Your task to perform on an android device: turn on location history Image 0: 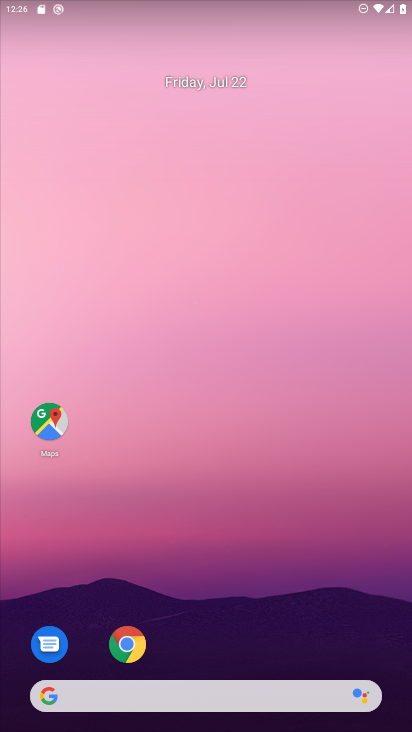
Step 0: drag from (204, 632) to (272, 103)
Your task to perform on an android device: turn on location history Image 1: 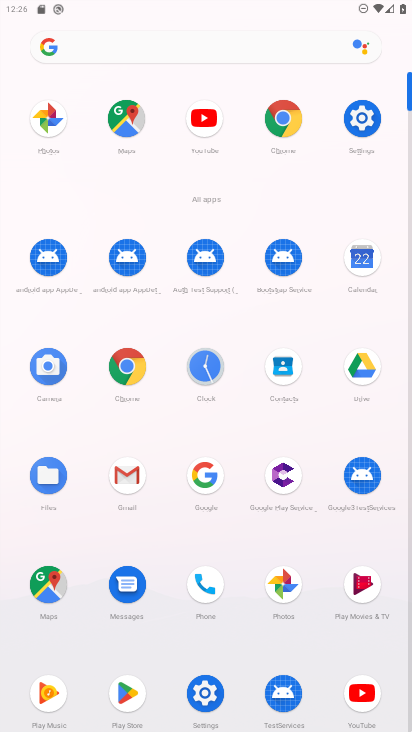
Step 1: click (361, 128)
Your task to perform on an android device: turn on location history Image 2: 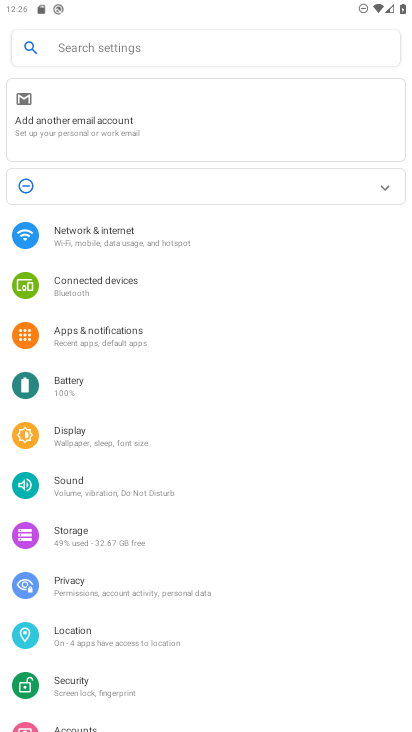
Step 2: click (85, 641)
Your task to perform on an android device: turn on location history Image 3: 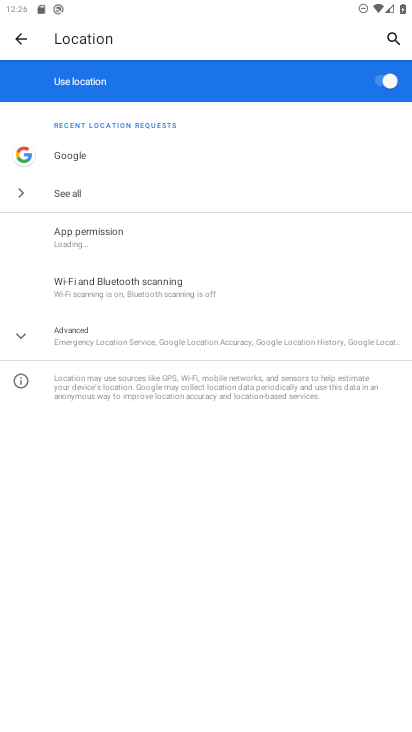
Step 3: click (161, 329)
Your task to perform on an android device: turn on location history Image 4: 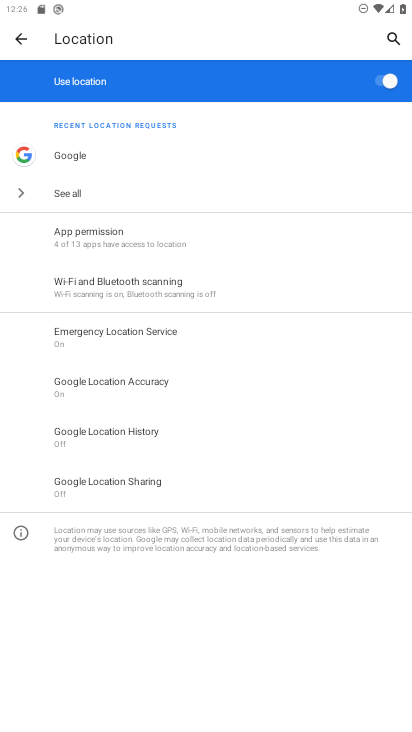
Step 4: click (136, 435)
Your task to perform on an android device: turn on location history Image 5: 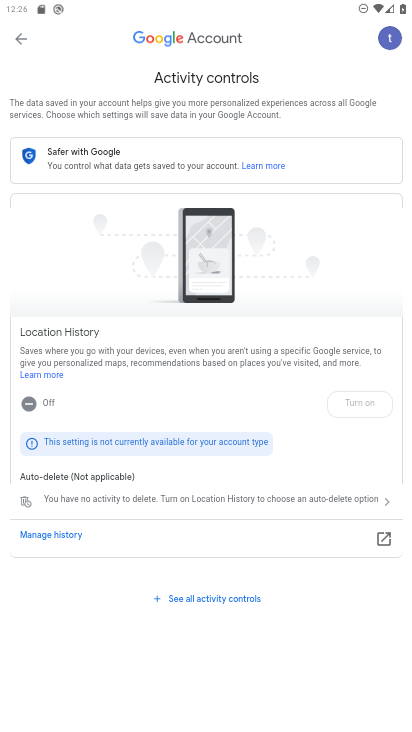
Step 5: task complete